Your task to perform on an android device: What's on my calendar today? Image 0: 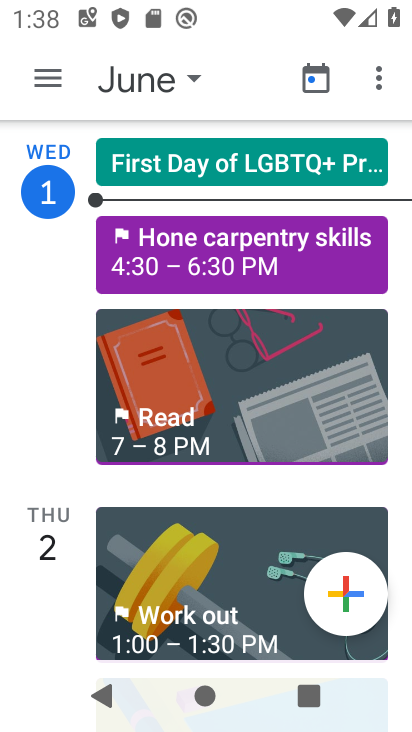
Step 0: click (187, 153)
Your task to perform on an android device: What's on my calendar today? Image 1: 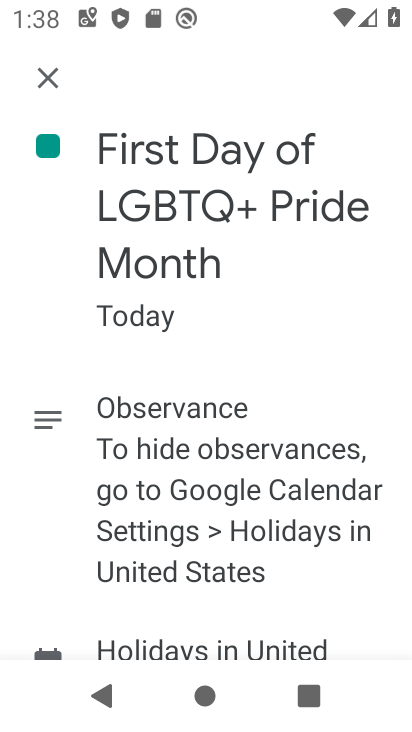
Step 1: task complete